Your task to perform on an android device: Open calendar and show me the fourth week of next month Image 0: 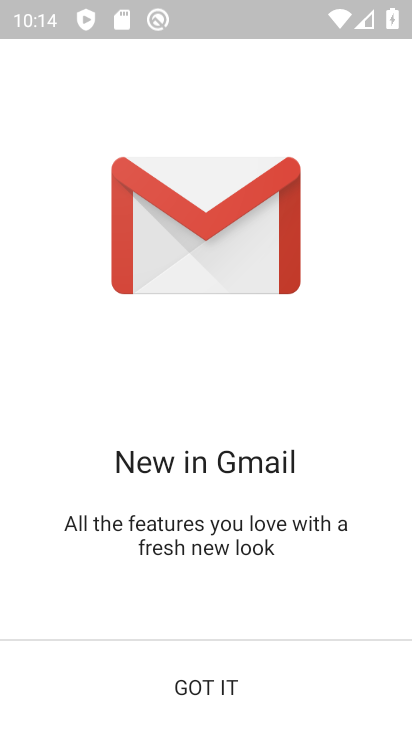
Step 0: press home button
Your task to perform on an android device: Open calendar and show me the fourth week of next month Image 1: 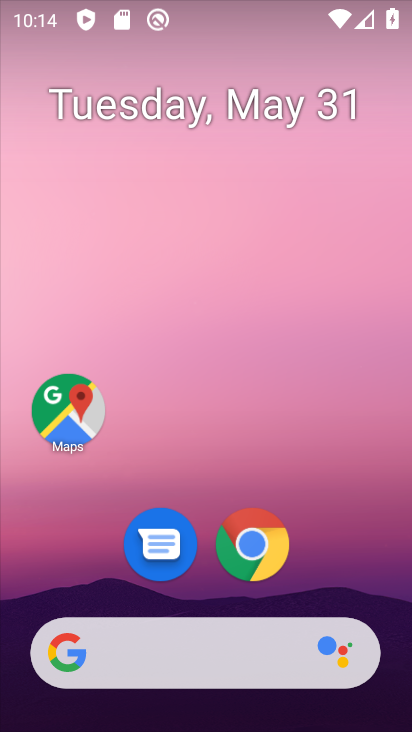
Step 1: drag from (209, 583) to (229, 214)
Your task to perform on an android device: Open calendar and show me the fourth week of next month Image 2: 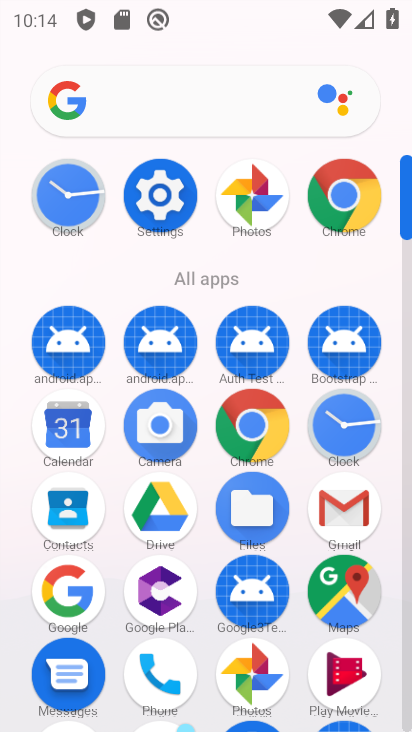
Step 2: click (83, 419)
Your task to perform on an android device: Open calendar and show me the fourth week of next month Image 3: 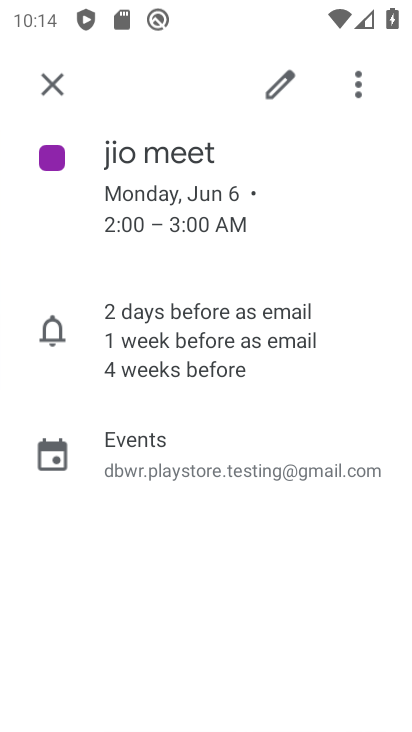
Step 3: click (50, 89)
Your task to perform on an android device: Open calendar and show me the fourth week of next month Image 4: 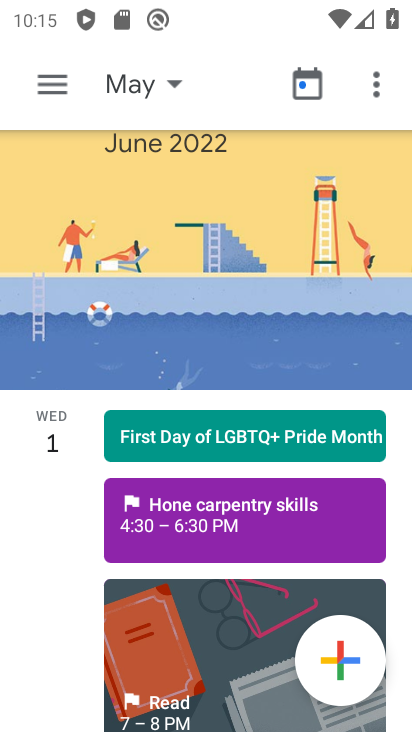
Step 4: click (160, 88)
Your task to perform on an android device: Open calendar and show me the fourth week of next month Image 5: 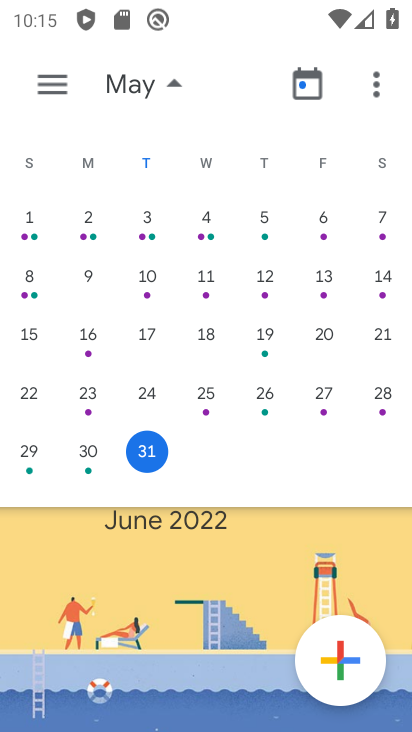
Step 5: drag from (331, 289) to (1, 275)
Your task to perform on an android device: Open calendar and show me the fourth week of next month Image 6: 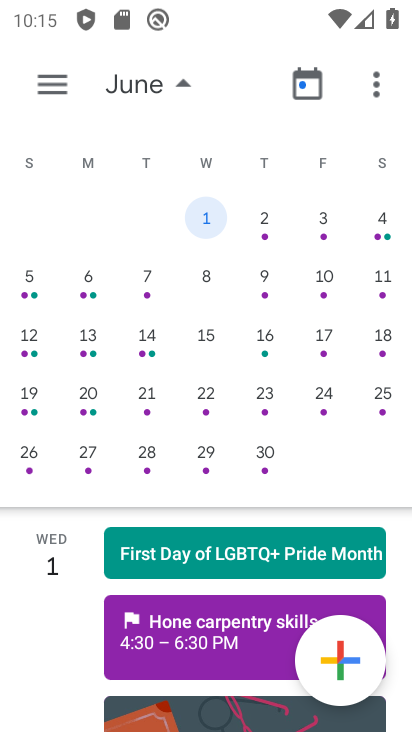
Step 6: click (29, 393)
Your task to perform on an android device: Open calendar and show me the fourth week of next month Image 7: 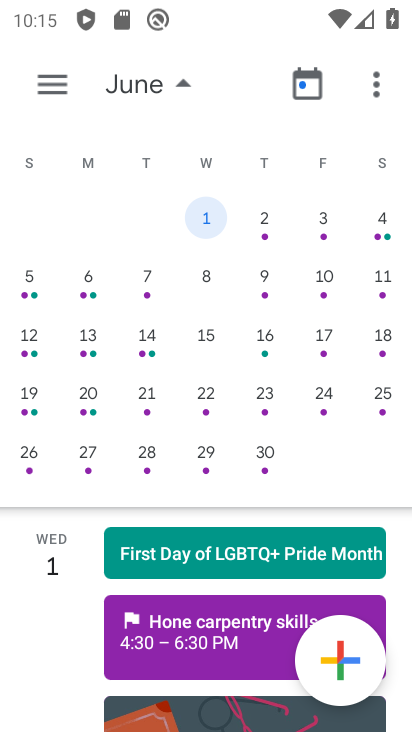
Step 7: click (29, 381)
Your task to perform on an android device: Open calendar and show me the fourth week of next month Image 8: 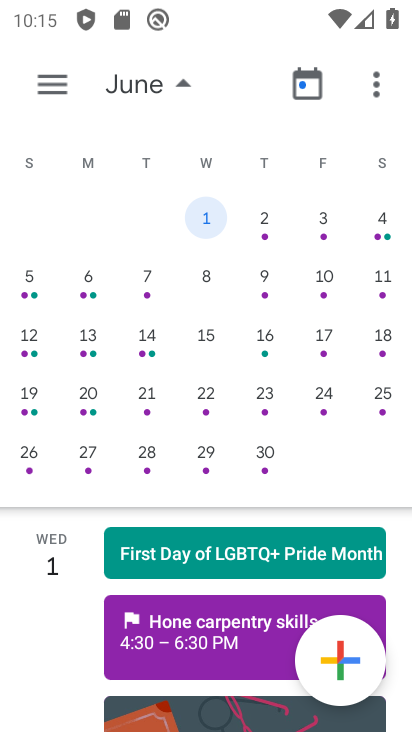
Step 8: click (34, 394)
Your task to perform on an android device: Open calendar and show me the fourth week of next month Image 9: 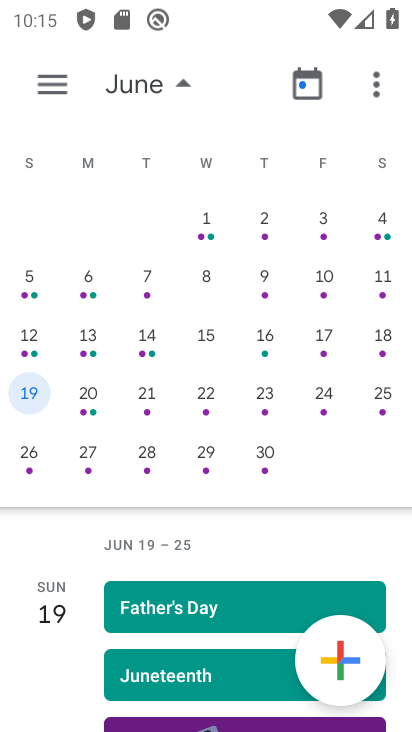
Step 9: task complete